Your task to perform on an android device: Go to CNN.com Image 0: 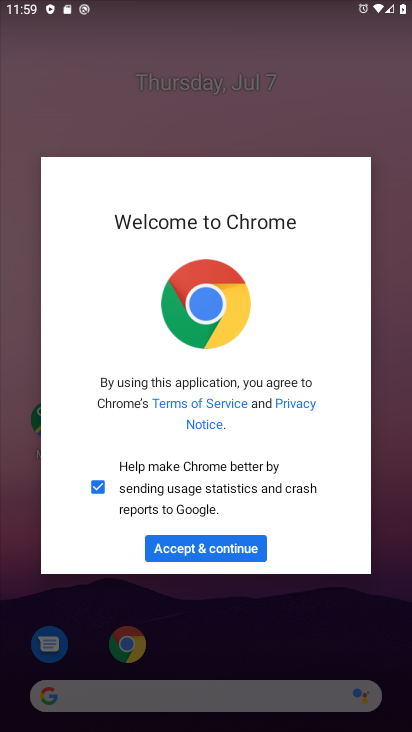
Step 0: click (214, 550)
Your task to perform on an android device: Go to CNN.com Image 1: 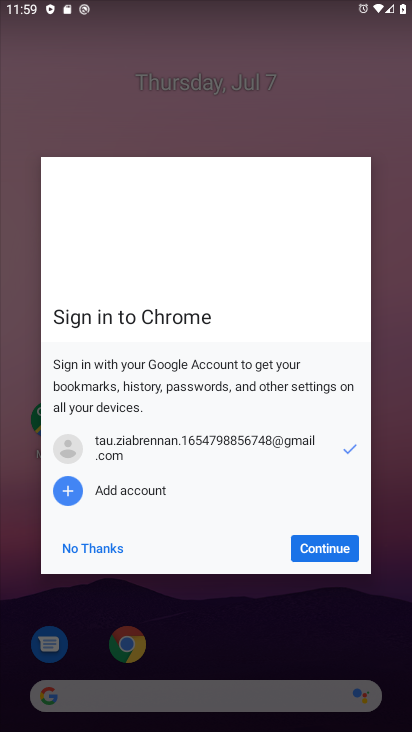
Step 1: click (307, 554)
Your task to perform on an android device: Go to CNN.com Image 2: 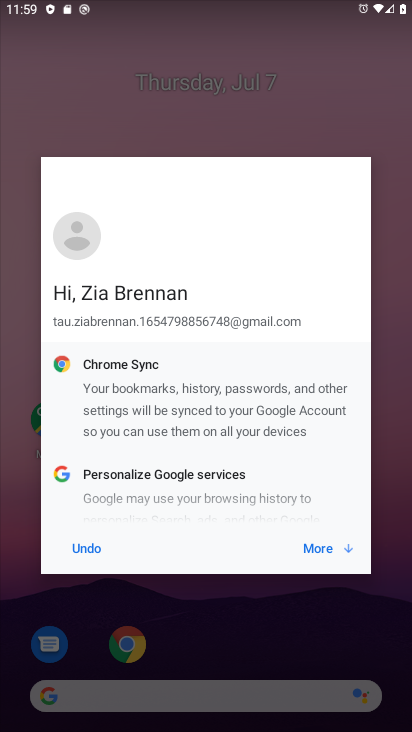
Step 2: click (323, 543)
Your task to perform on an android device: Go to CNN.com Image 3: 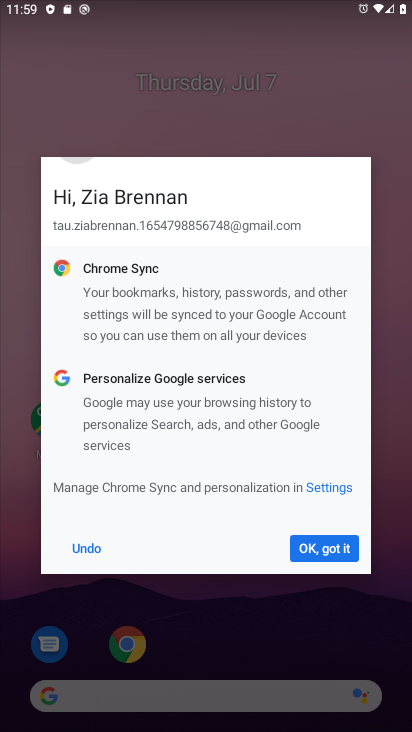
Step 3: click (323, 543)
Your task to perform on an android device: Go to CNN.com Image 4: 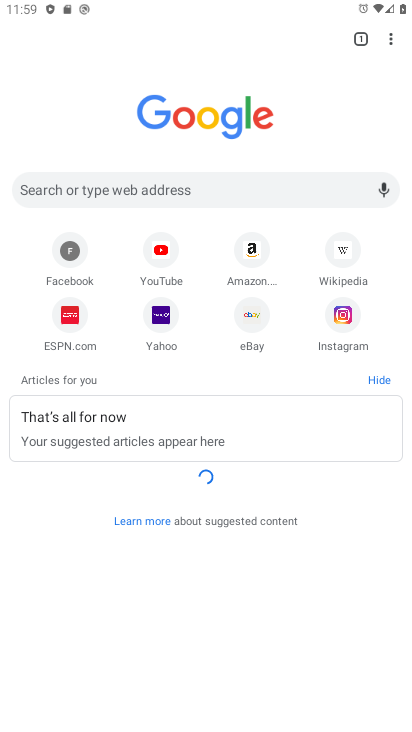
Step 4: click (244, 185)
Your task to perform on an android device: Go to CNN.com Image 5: 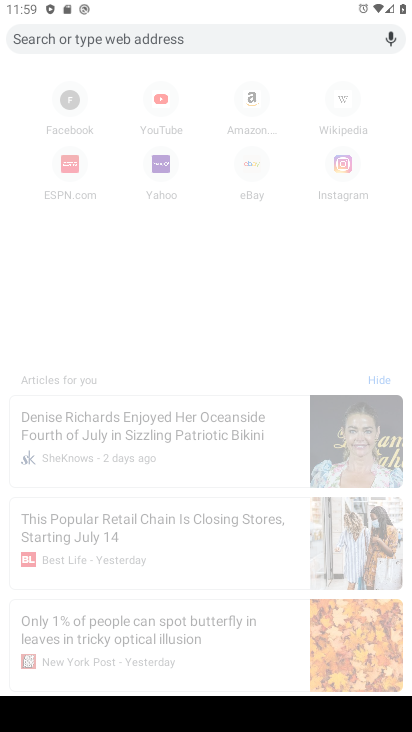
Step 5: type "CNN.com"
Your task to perform on an android device: Go to CNN.com Image 6: 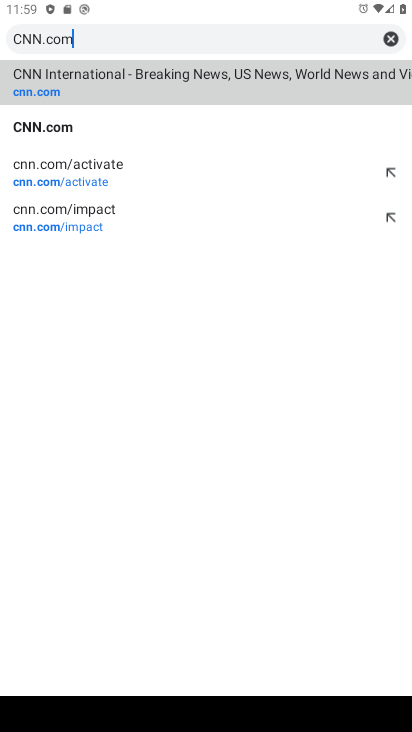
Step 6: click (86, 134)
Your task to perform on an android device: Go to CNN.com Image 7: 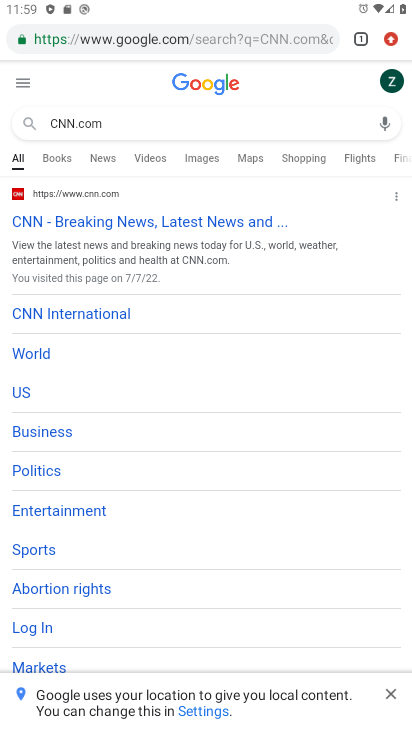
Step 7: task complete